Your task to perform on an android device: install app "Microsoft Authenticator" Image 0: 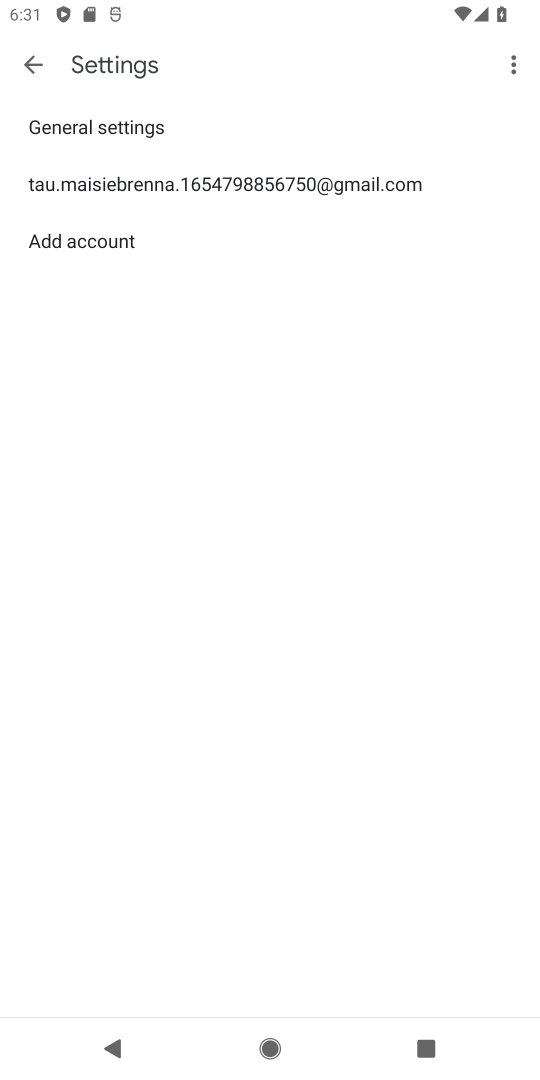
Step 0: press home button
Your task to perform on an android device: install app "Microsoft Authenticator" Image 1: 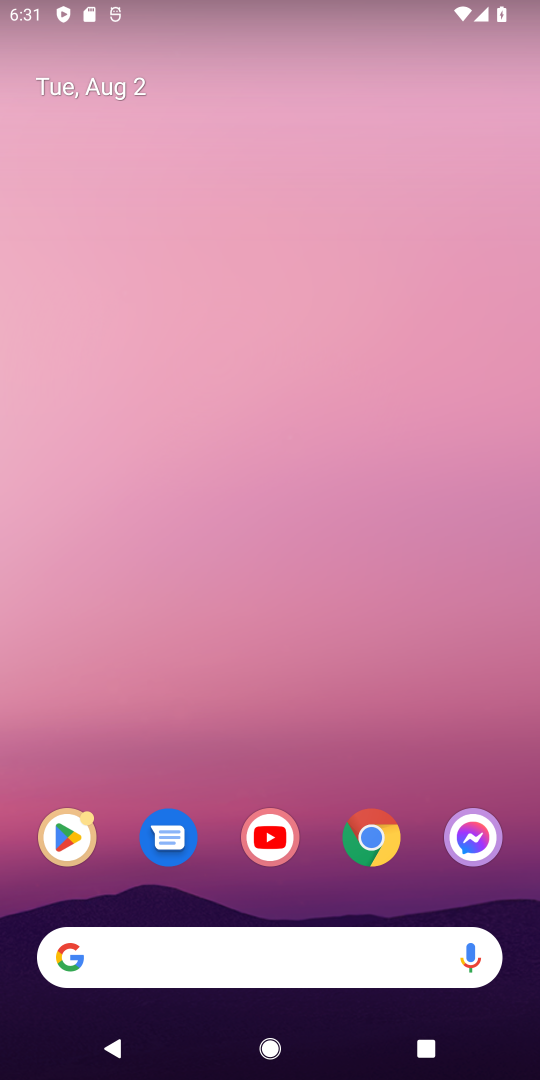
Step 1: click (64, 846)
Your task to perform on an android device: install app "Microsoft Authenticator" Image 2: 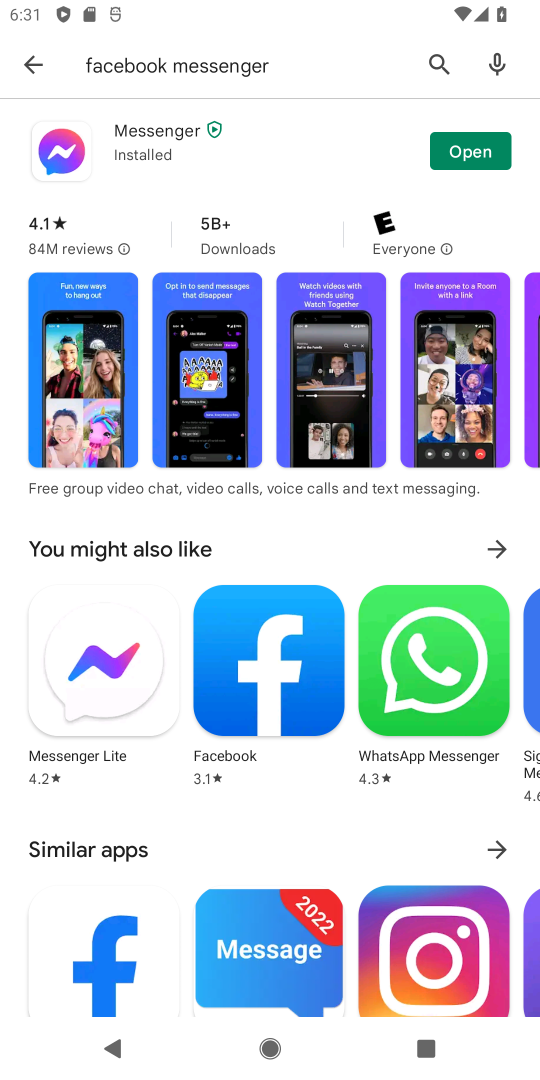
Step 2: click (436, 66)
Your task to perform on an android device: install app "Microsoft Authenticator" Image 3: 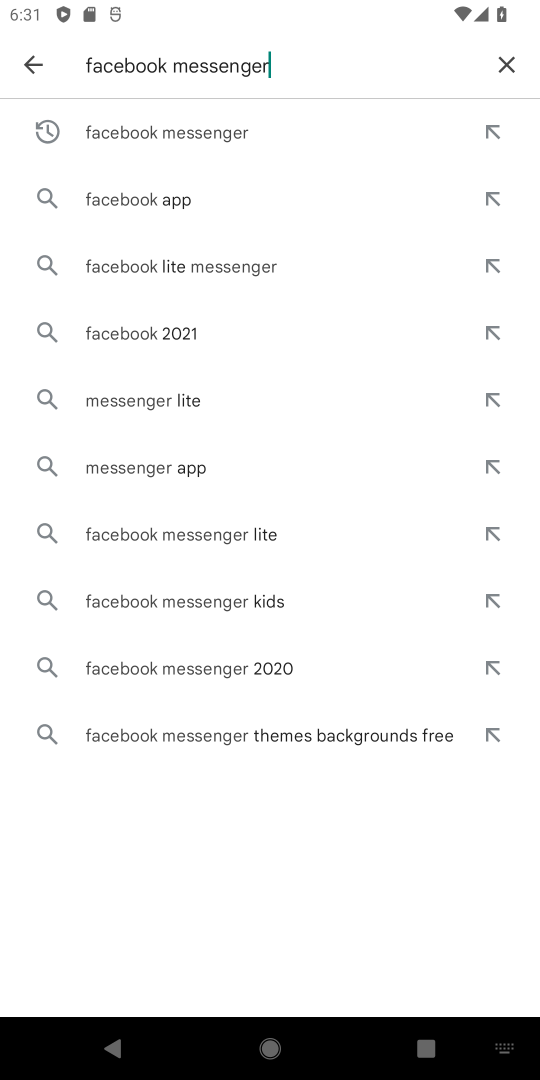
Step 3: click (496, 57)
Your task to perform on an android device: install app "Microsoft Authenticator" Image 4: 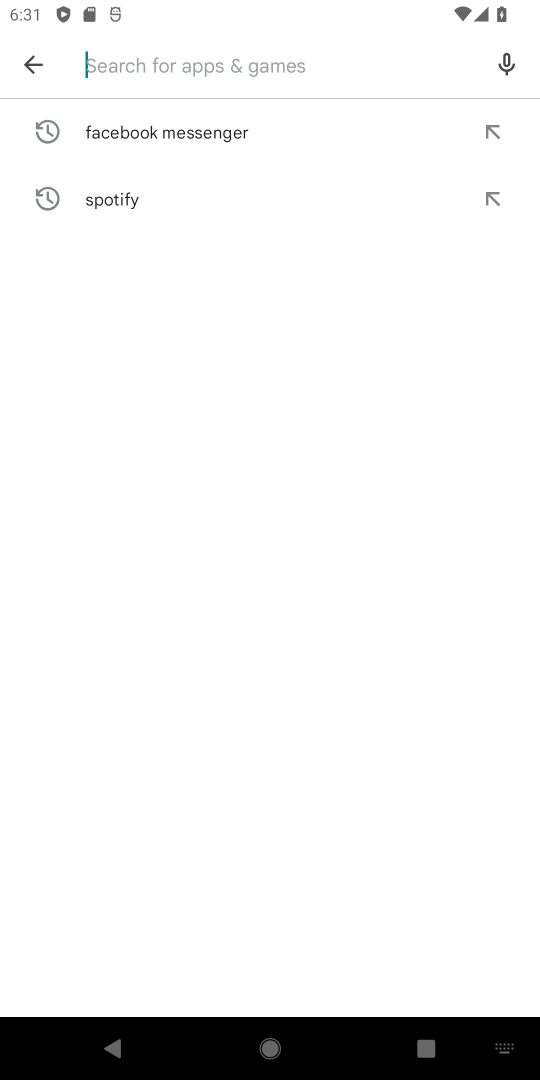
Step 4: type "Microsoft Authenticator"
Your task to perform on an android device: install app "Microsoft Authenticator" Image 5: 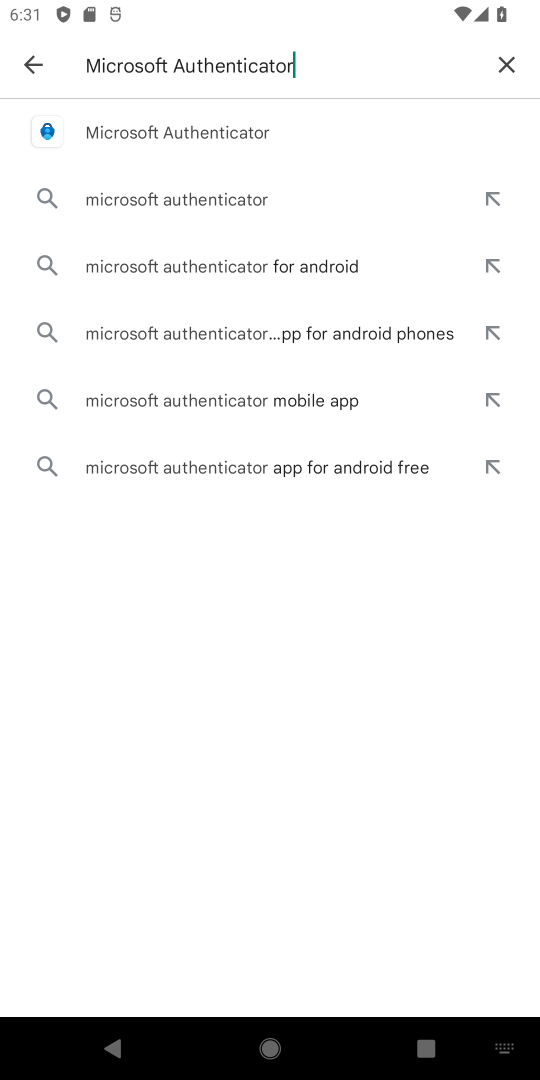
Step 5: click (191, 142)
Your task to perform on an android device: install app "Microsoft Authenticator" Image 6: 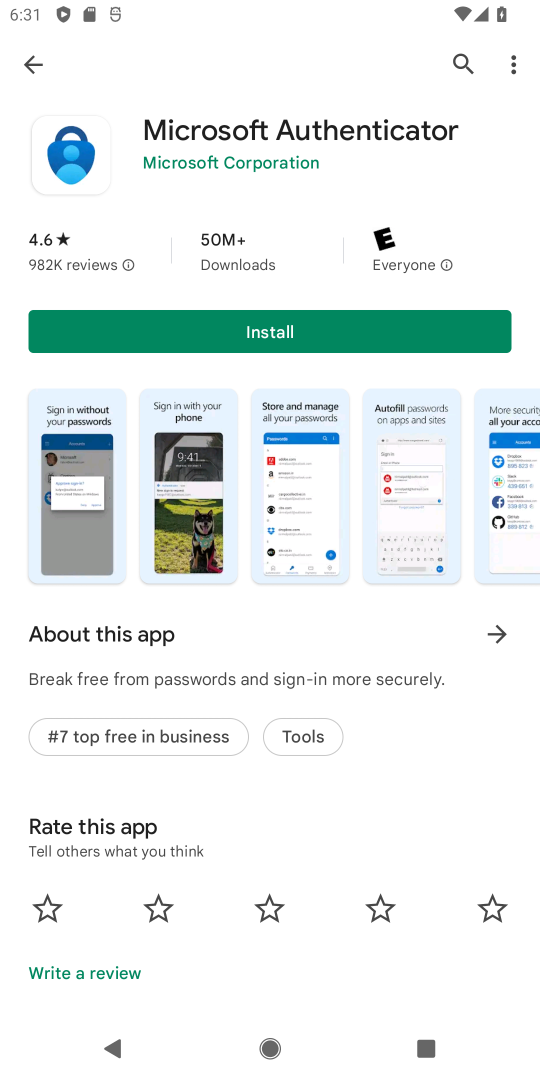
Step 6: click (251, 330)
Your task to perform on an android device: install app "Microsoft Authenticator" Image 7: 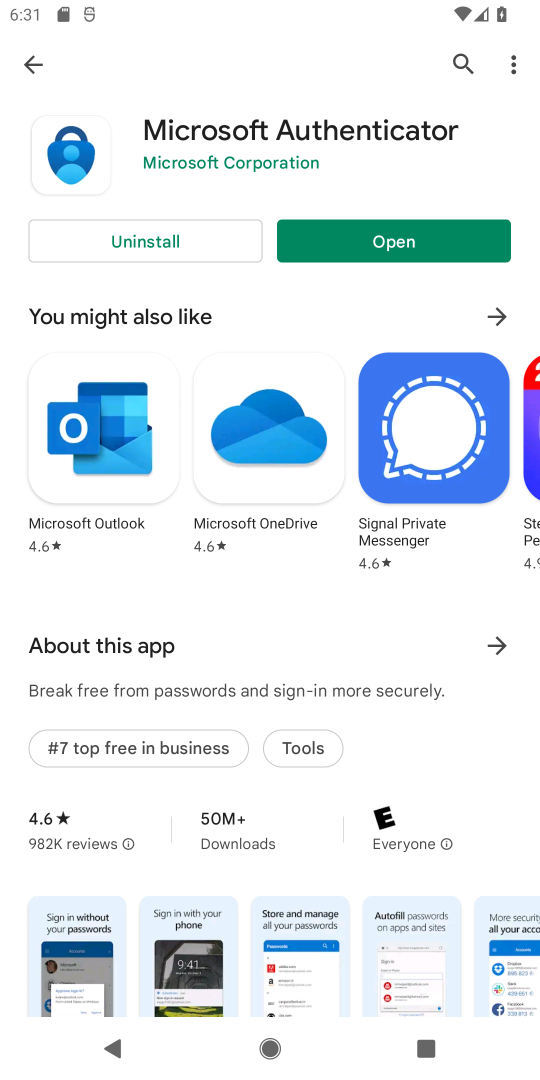
Step 7: task complete